Your task to perform on an android device: Open Google Maps and go to "Timeline" Image 0: 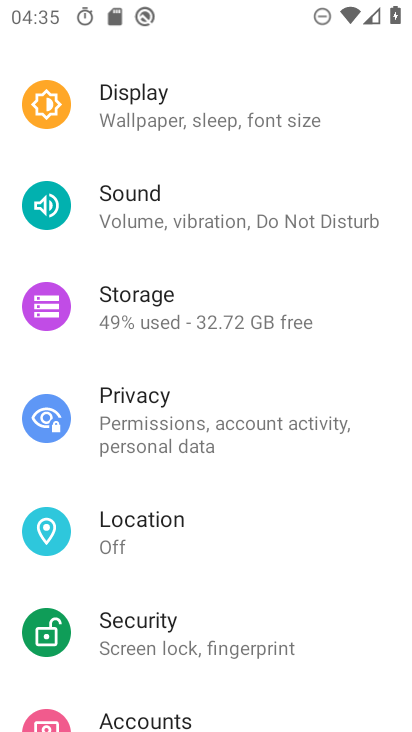
Step 0: press home button
Your task to perform on an android device: Open Google Maps and go to "Timeline" Image 1: 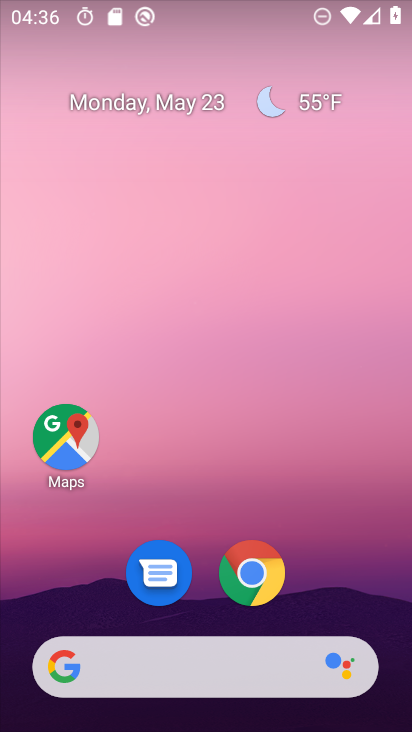
Step 1: click (75, 428)
Your task to perform on an android device: Open Google Maps and go to "Timeline" Image 2: 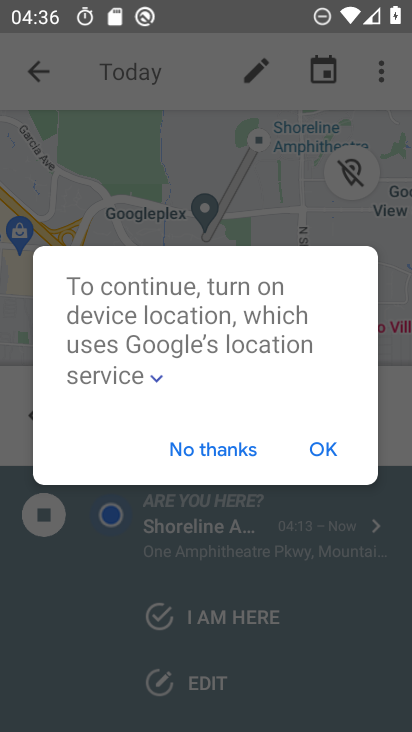
Step 2: click (329, 443)
Your task to perform on an android device: Open Google Maps and go to "Timeline" Image 3: 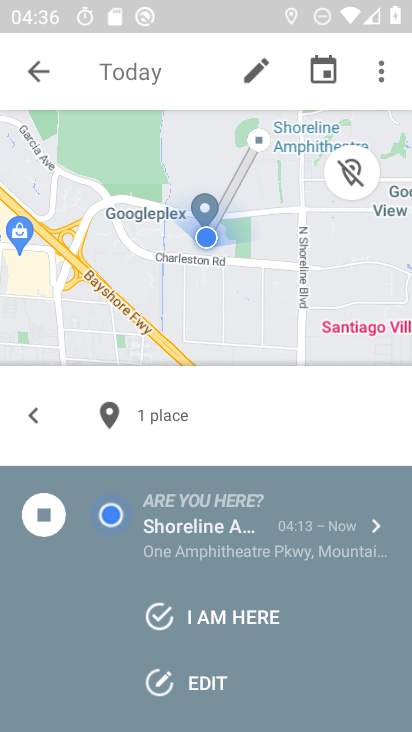
Step 3: task complete